Your task to perform on an android device: Open Amazon Image 0: 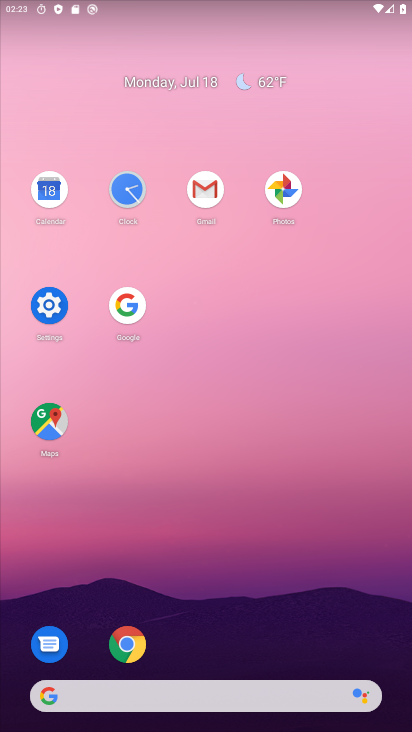
Step 0: click (125, 643)
Your task to perform on an android device: Open Amazon Image 1: 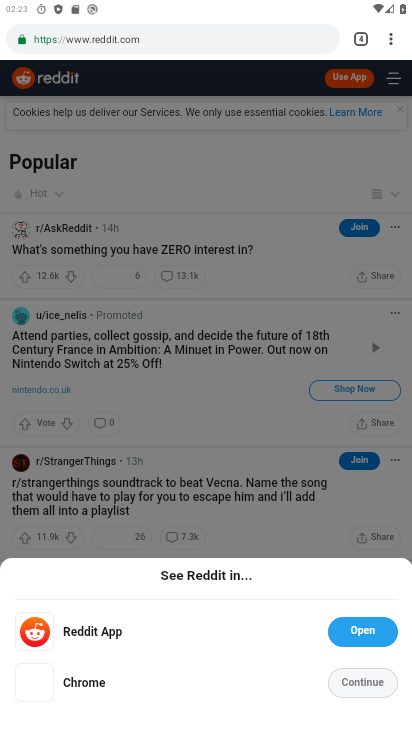
Step 1: click (362, 37)
Your task to perform on an android device: Open Amazon Image 2: 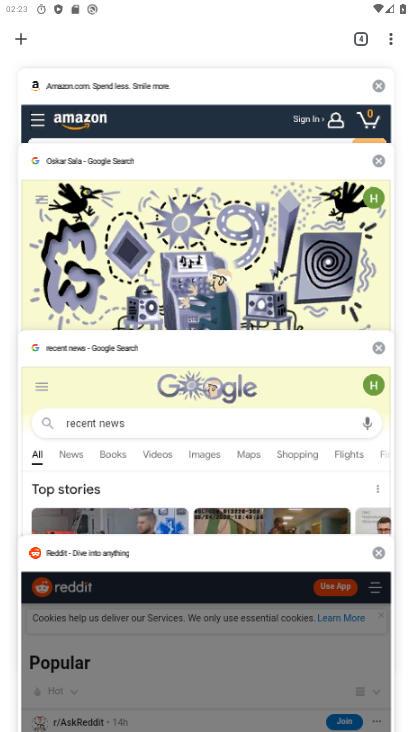
Step 2: click (139, 187)
Your task to perform on an android device: Open Amazon Image 3: 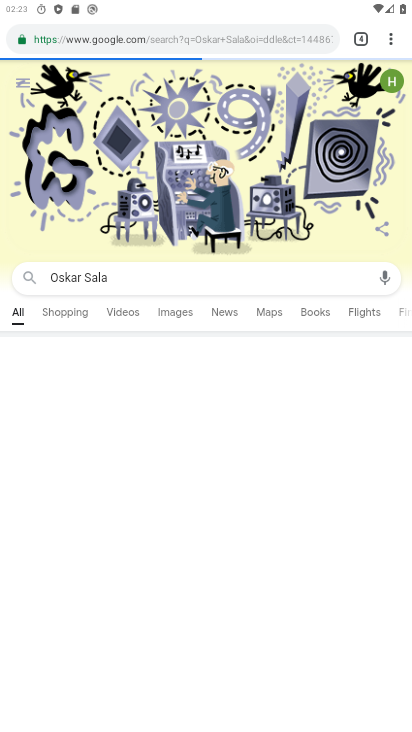
Step 3: task complete